Your task to perform on an android device: stop showing notifications on the lock screen Image 0: 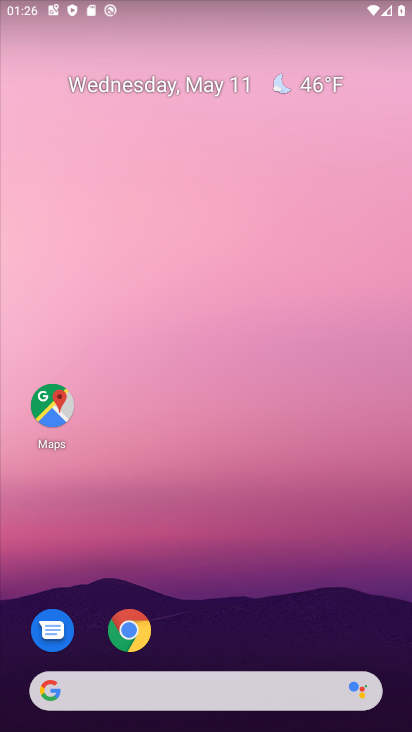
Step 0: drag from (310, 633) to (391, 96)
Your task to perform on an android device: stop showing notifications on the lock screen Image 1: 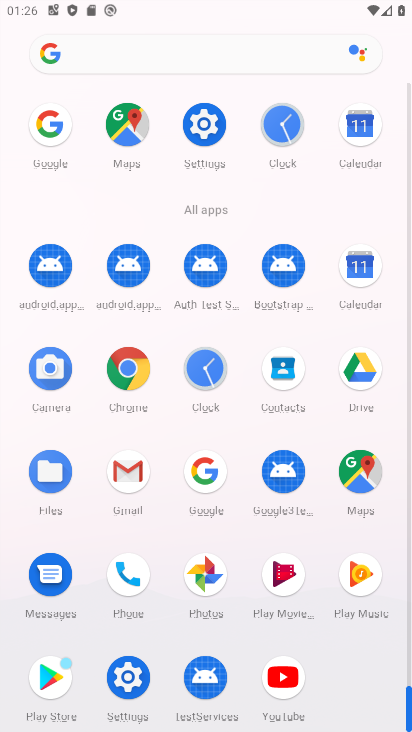
Step 1: click (194, 137)
Your task to perform on an android device: stop showing notifications on the lock screen Image 2: 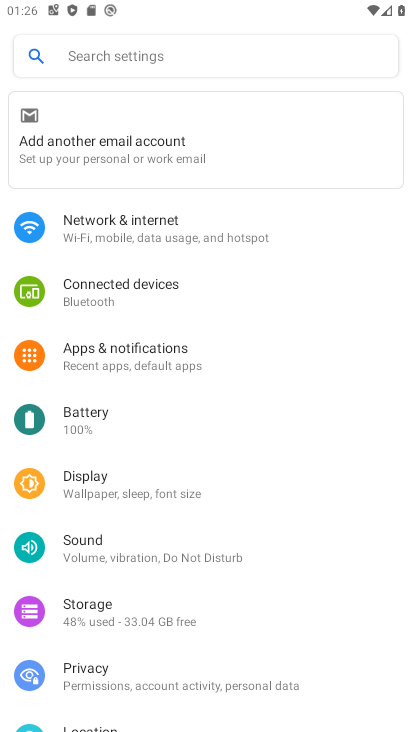
Step 2: drag from (207, 204) to (166, 535)
Your task to perform on an android device: stop showing notifications on the lock screen Image 3: 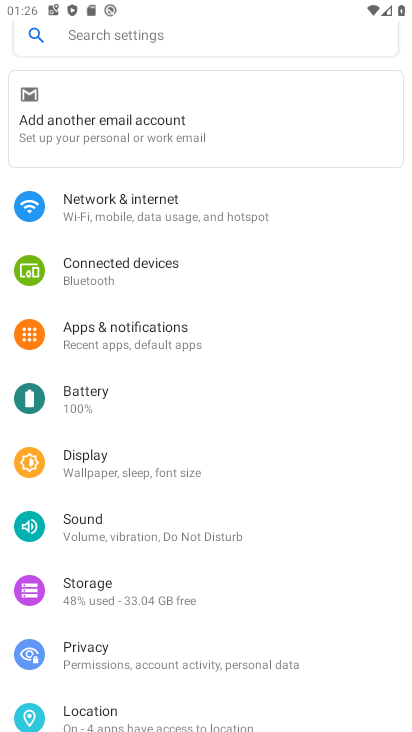
Step 3: drag from (178, 601) to (160, 478)
Your task to perform on an android device: stop showing notifications on the lock screen Image 4: 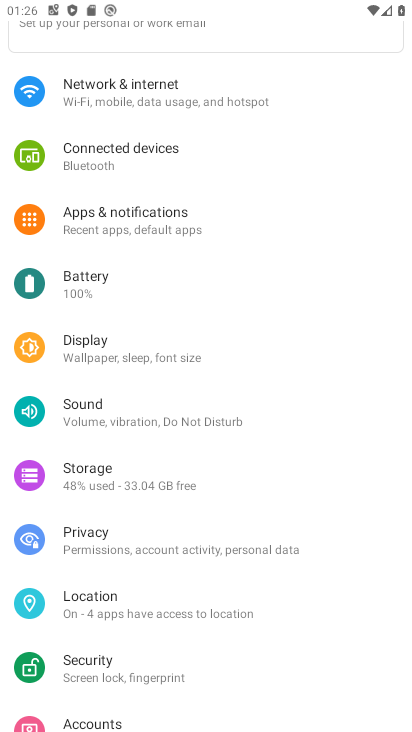
Step 4: click (117, 221)
Your task to perform on an android device: stop showing notifications on the lock screen Image 5: 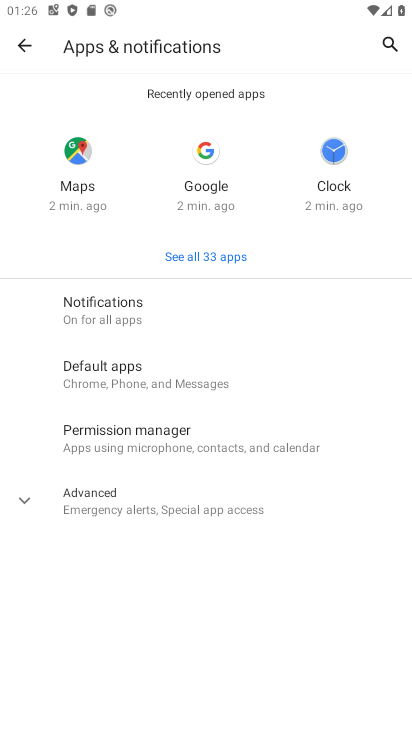
Step 5: click (77, 330)
Your task to perform on an android device: stop showing notifications on the lock screen Image 6: 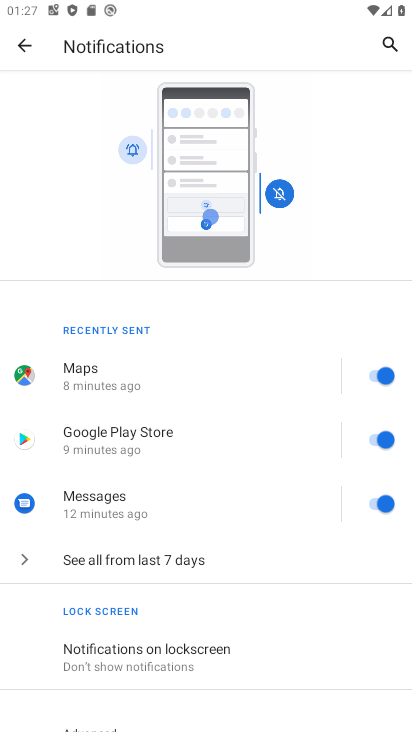
Step 6: task complete